Your task to perform on an android device: see sites visited before in the chrome app Image 0: 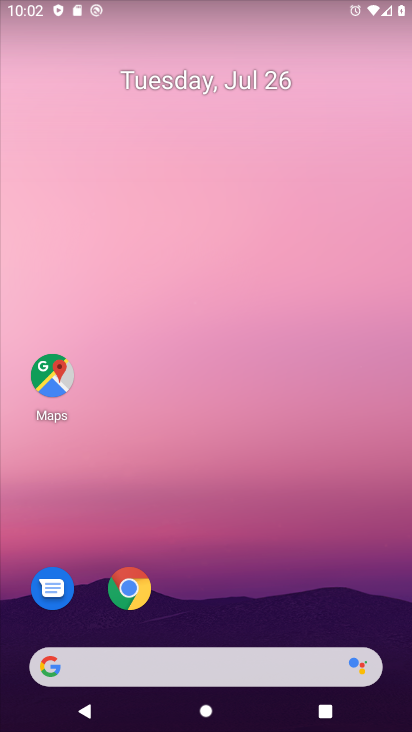
Step 0: click (126, 590)
Your task to perform on an android device: see sites visited before in the chrome app Image 1: 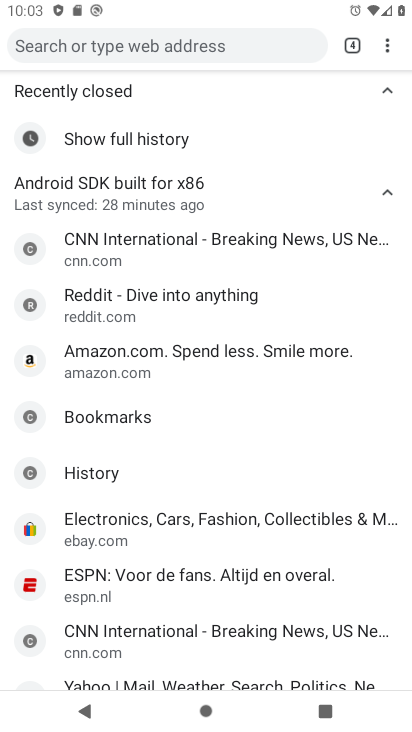
Step 1: task complete